Your task to perform on an android device: turn on notifications settings in the gmail app Image 0: 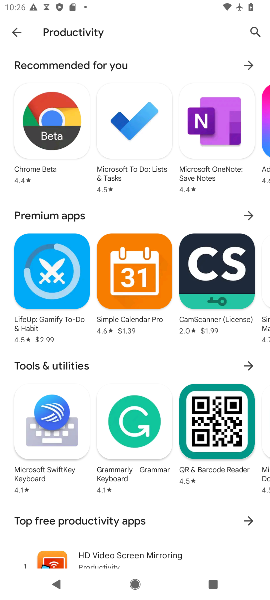
Step 0: press home button
Your task to perform on an android device: turn on notifications settings in the gmail app Image 1: 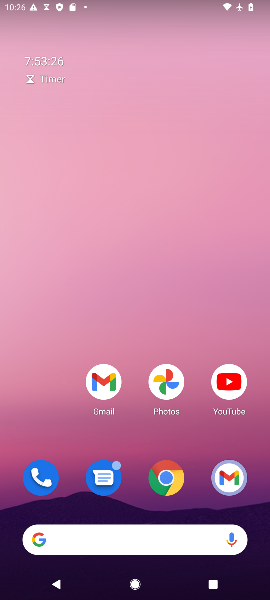
Step 1: drag from (201, 441) to (167, 61)
Your task to perform on an android device: turn on notifications settings in the gmail app Image 2: 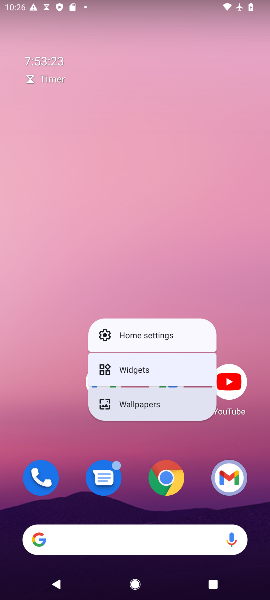
Step 2: click (234, 472)
Your task to perform on an android device: turn on notifications settings in the gmail app Image 3: 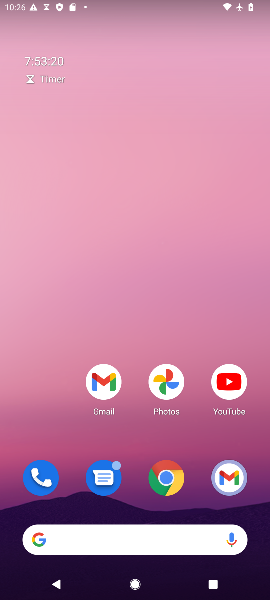
Step 3: click (230, 477)
Your task to perform on an android device: turn on notifications settings in the gmail app Image 4: 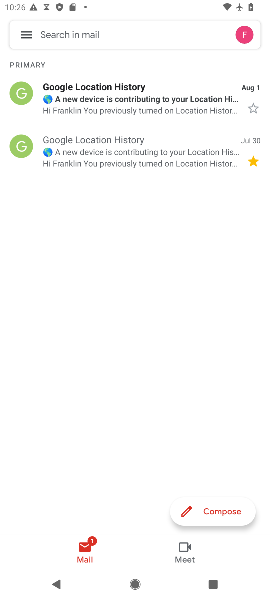
Step 4: click (17, 31)
Your task to perform on an android device: turn on notifications settings in the gmail app Image 5: 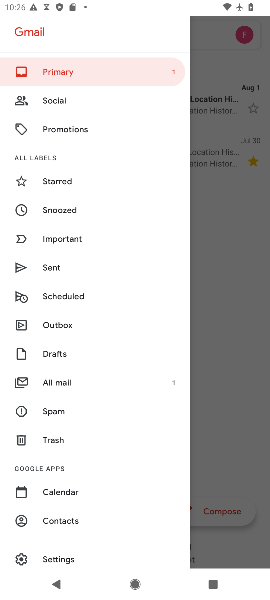
Step 5: drag from (109, 545) to (67, 220)
Your task to perform on an android device: turn on notifications settings in the gmail app Image 6: 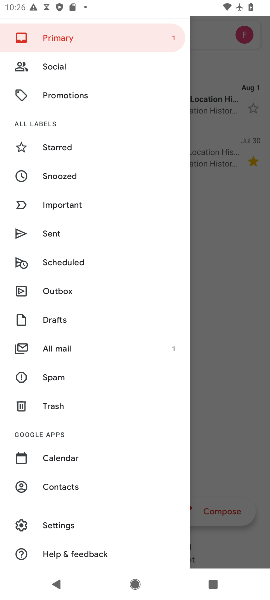
Step 6: click (74, 522)
Your task to perform on an android device: turn on notifications settings in the gmail app Image 7: 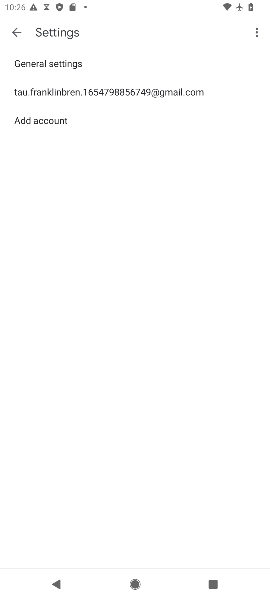
Step 7: click (121, 96)
Your task to perform on an android device: turn on notifications settings in the gmail app Image 8: 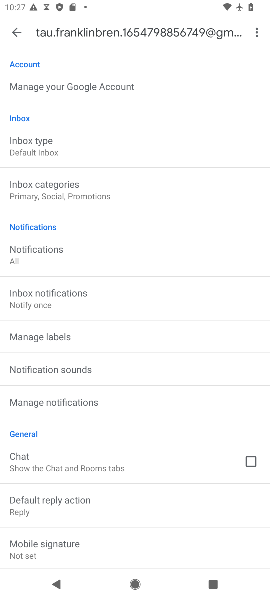
Step 8: click (109, 404)
Your task to perform on an android device: turn on notifications settings in the gmail app Image 9: 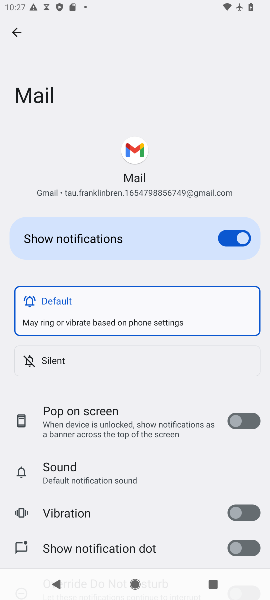
Step 9: drag from (162, 443) to (145, 267)
Your task to perform on an android device: turn on notifications settings in the gmail app Image 10: 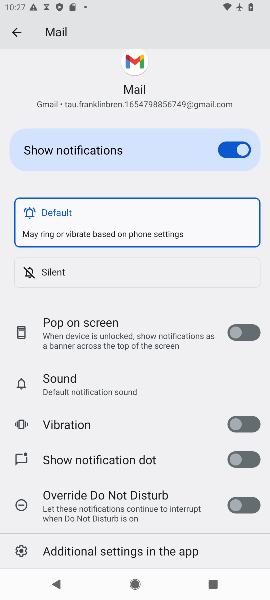
Step 10: drag from (179, 415) to (157, 221)
Your task to perform on an android device: turn on notifications settings in the gmail app Image 11: 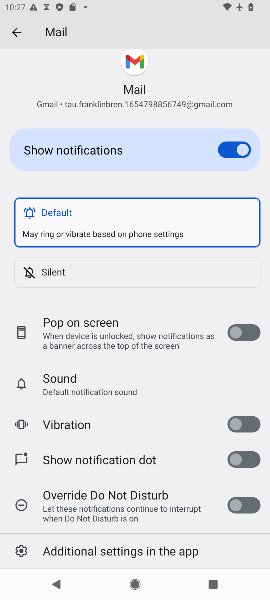
Step 11: drag from (135, 299) to (169, 528)
Your task to perform on an android device: turn on notifications settings in the gmail app Image 12: 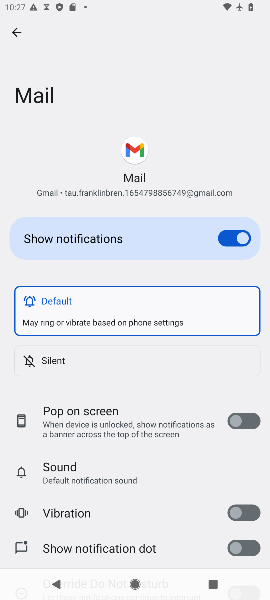
Step 12: click (251, 416)
Your task to perform on an android device: turn on notifications settings in the gmail app Image 13: 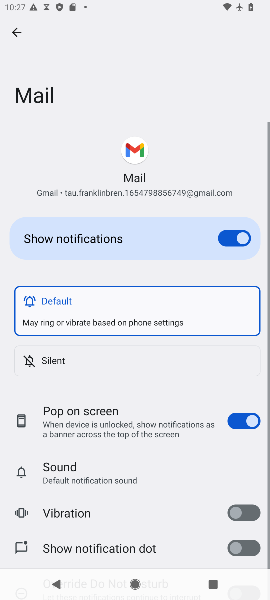
Step 13: click (253, 514)
Your task to perform on an android device: turn on notifications settings in the gmail app Image 14: 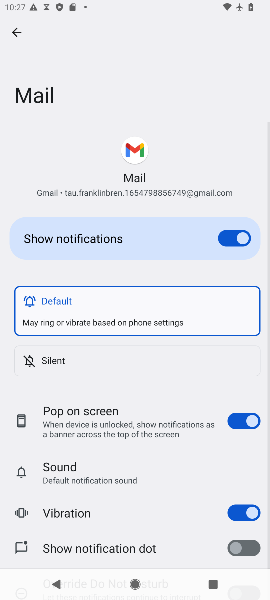
Step 14: drag from (161, 538) to (112, 249)
Your task to perform on an android device: turn on notifications settings in the gmail app Image 15: 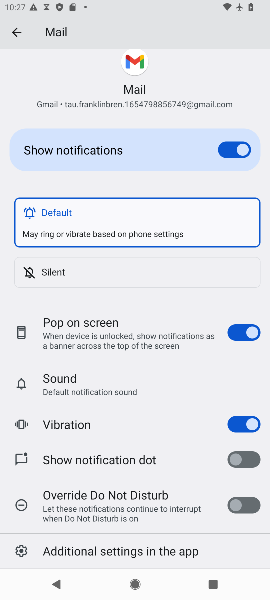
Step 15: click (247, 456)
Your task to perform on an android device: turn on notifications settings in the gmail app Image 16: 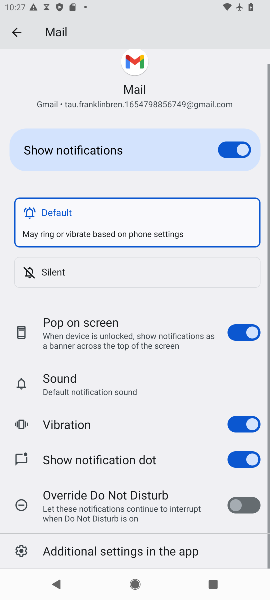
Step 16: click (253, 504)
Your task to perform on an android device: turn on notifications settings in the gmail app Image 17: 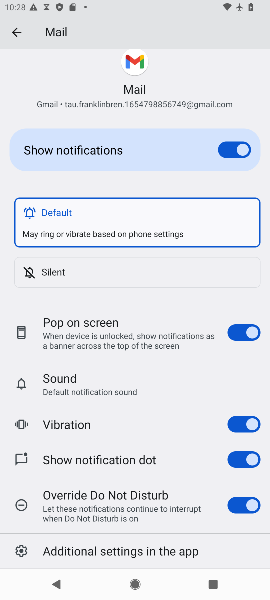
Step 17: task complete